Your task to perform on an android device: Search for Italian restaurants on Maps Image 0: 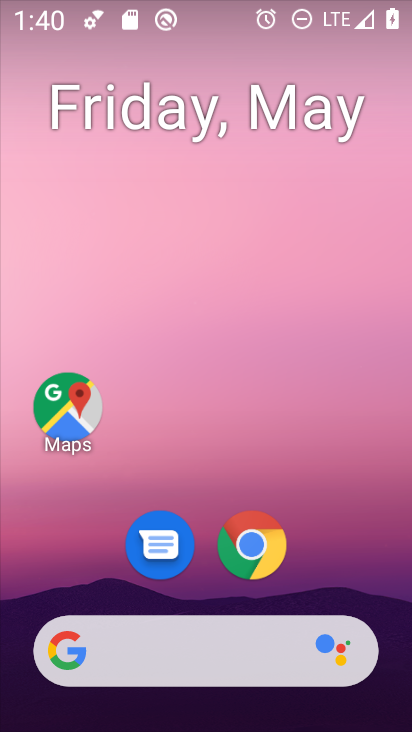
Step 0: click (64, 401)
Your task to perform on an android device: Search for Italian restaurants on Maps Image 1: 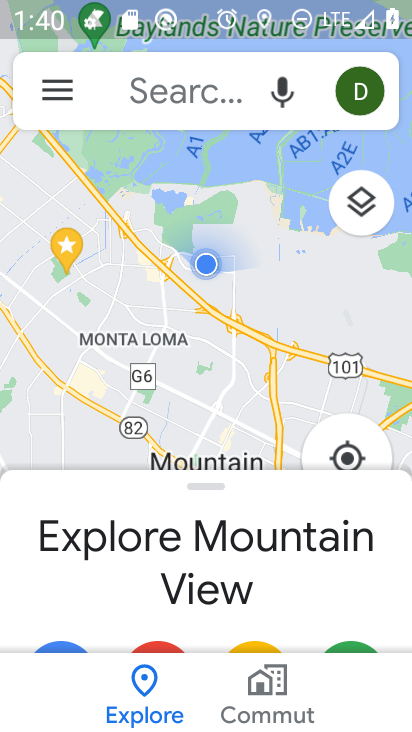
Step 1: click (246, 82)
Your task to perform on an android device: Search for Italian restaurants on Maps Image 2: 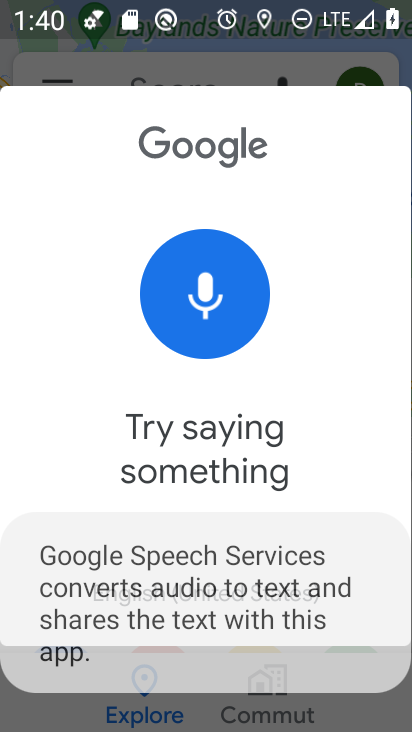
Step 2: press back button
Your task to perform on an android device: Search for Italian restaurants on Maps Image 3: 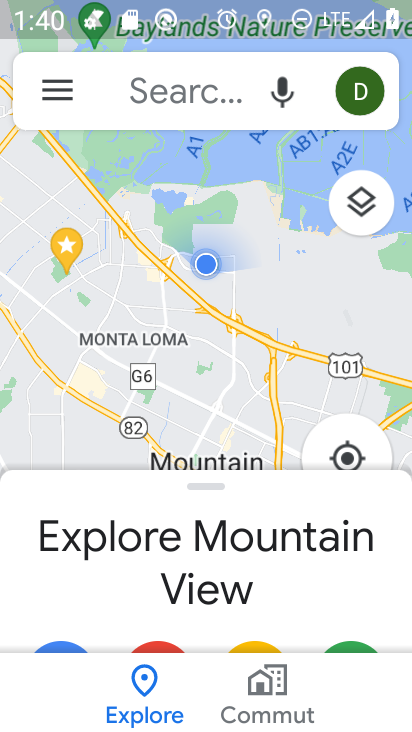
Step 3: click (167, 96)
Your task to perform on an android device: Search for Italian restaurants on Maps Image 4: 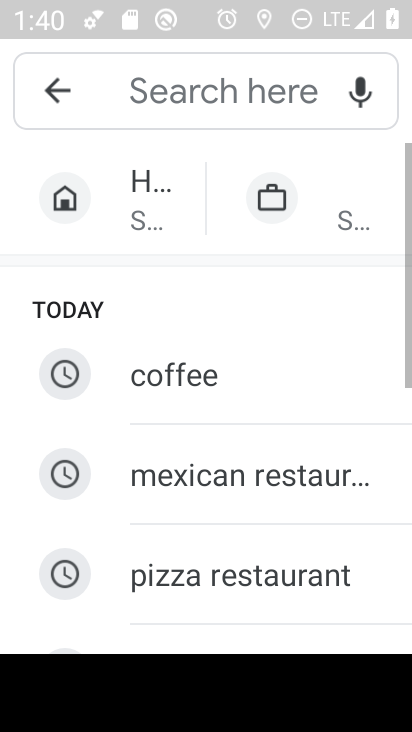
Step 4: drag from (222, 589) to (241, 330)
Your task to perform on an android device: Search for Italian restaurants on Maps Image 5: 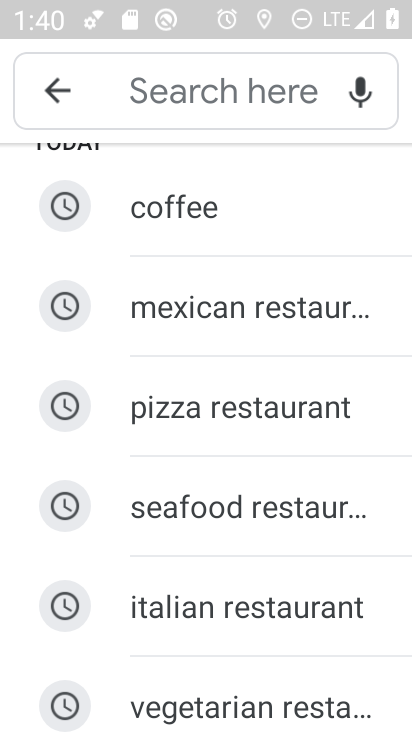
Step 5: click (221, 595)
Your task to perform on an android device: Search for Italian restaurants on Maps Image 6: 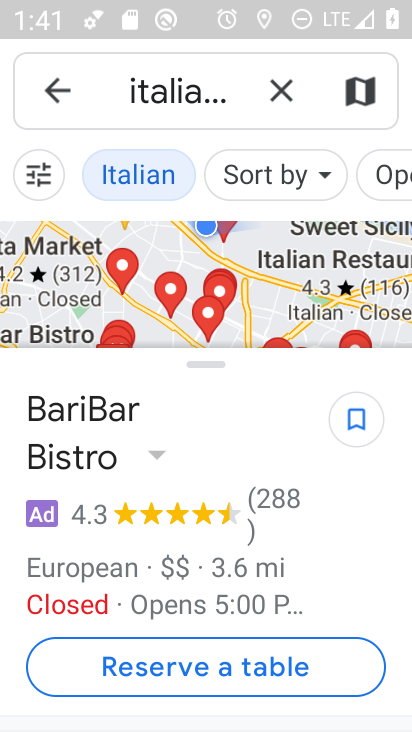
Step 6: task complete